Your task to perform on an android device: turn off notifications settings in the gmail app Image 0: 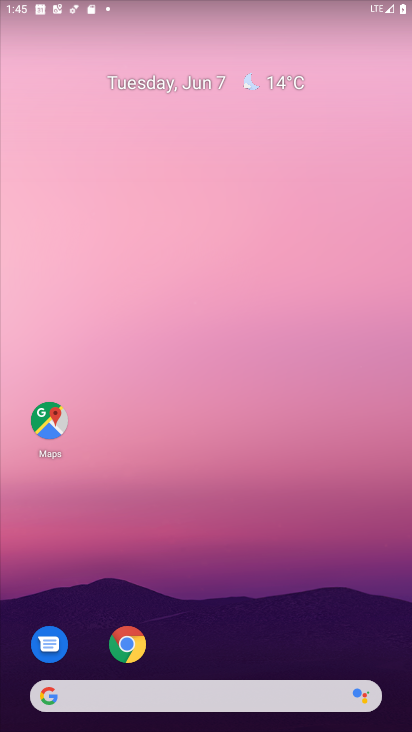
Step 0: drag from (266, 630) to (200, 0)
Your task to perform on an android device: turn off notifications settings in the gmail app Image 1: 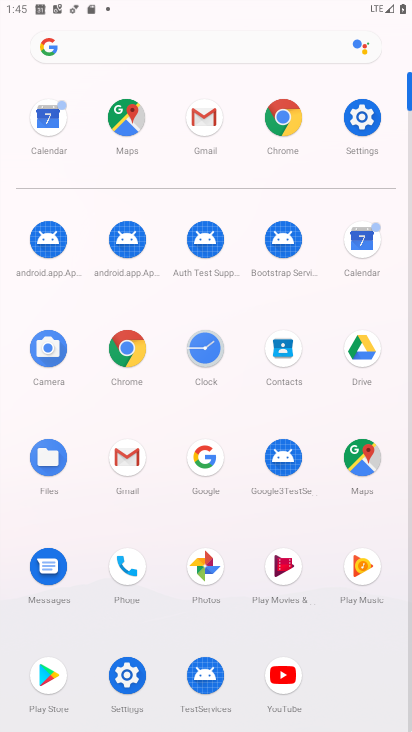
Step 1: click (130, 457)
Your task to perform on an android device: turn off notifications settings in the gmail app Image 2: 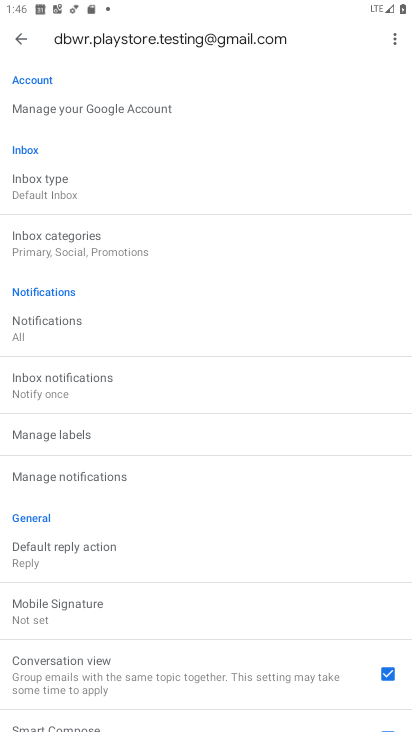
Step 2: click (126, 482)
Your task to perform on an android device: turn off notifications settings in the gmail app Image 3: 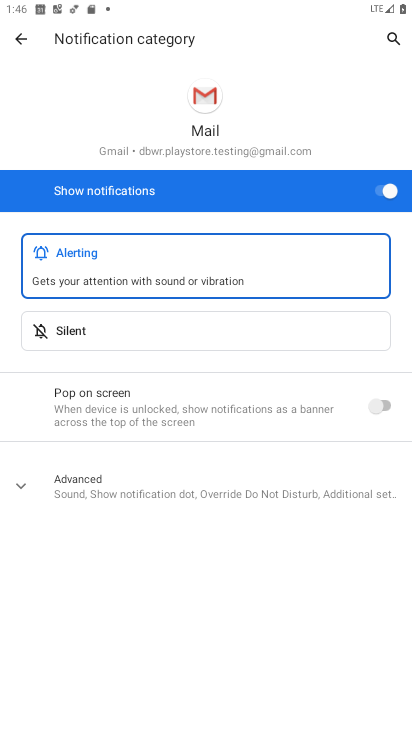
Step 3: click (376, 195)
Your task to perform on an android device: turn off notifications settings in the gmail app Image 4: 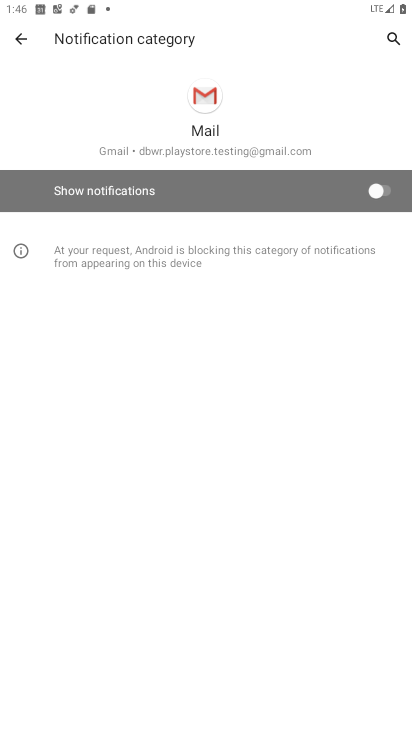
Step 4: task complete